Your task to perform on an android device: turn on notifications settings in the gmail app Image 0: 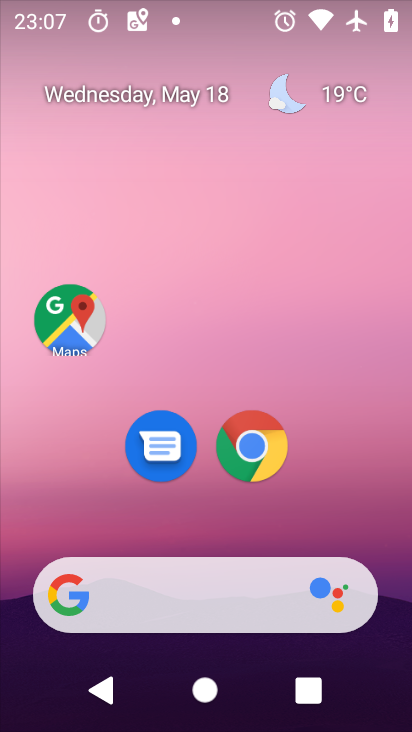
Step 0: press home button
Your task to perform on an android device: turn on notifications settings in the gmail app Image 1: 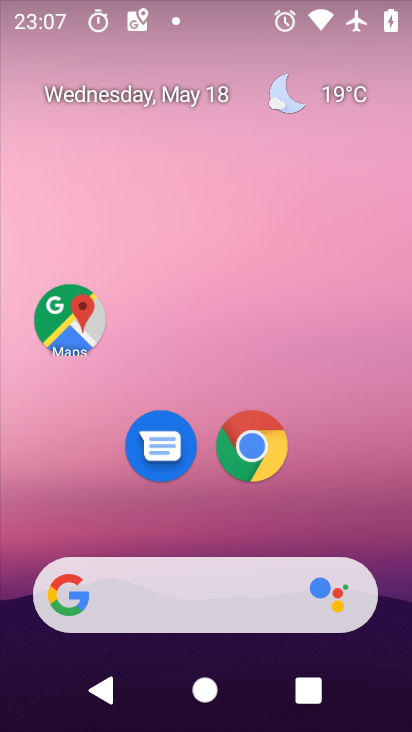
Step 1: drag from (213, 601) to (372, 142)
Your task to perform on an android device: turn on notifications settings in the gmail app Image 2: 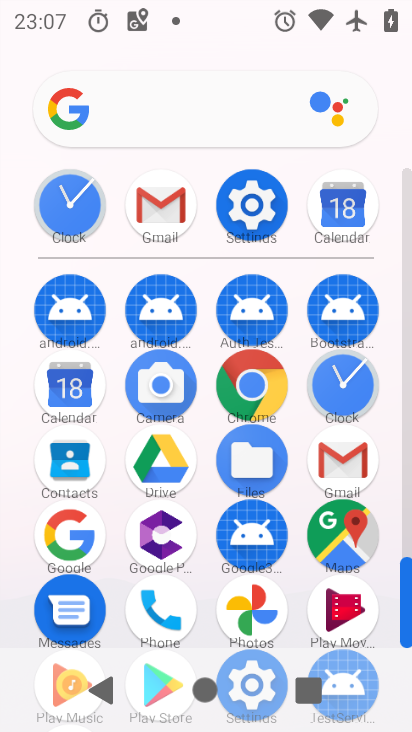
Step 2: click (167, 211)
Your task to perform on an android device: turn on notifications settings in the gmail app Image 3: 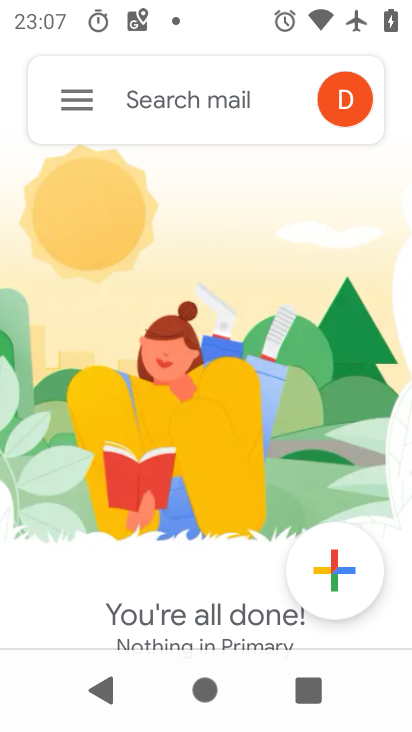
Step 3: click (75, 102)
Your task to perform on an android device: turn on notifications settings in the gmail app Image 4: 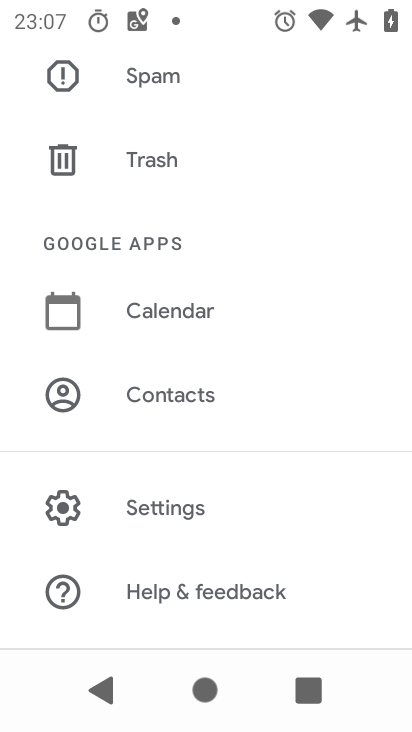
Step 4: click (171, 512)
Your task to perform on an android device: turn on notifications settings in the gmail app Image 5: 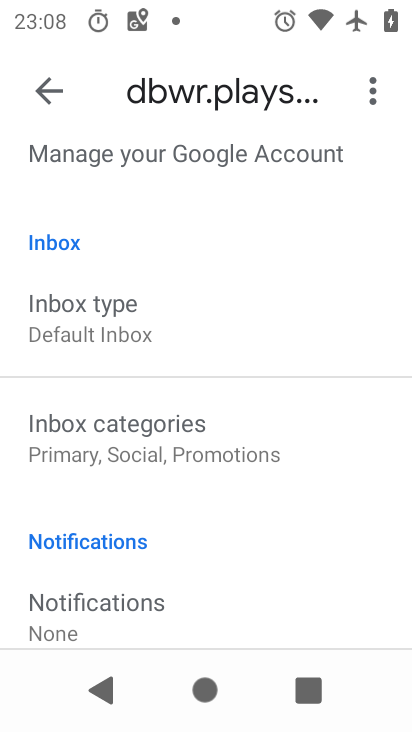
Step 5: drag from (165, 579) to (299, 391)
Your task to perform on an android device: turn on notifications settings in the gmail app Image 6: 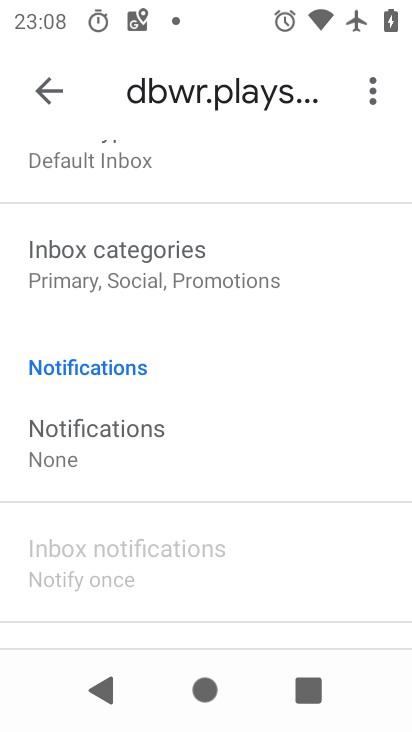
Step 6: click (113, 445)
Your task to perform on an android device: turn on notifications settings in the gmail app Image 7: 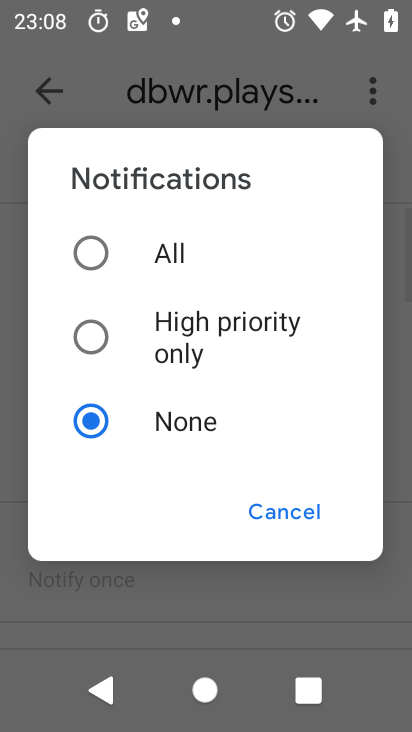
Step 7: click (89, 250)
Your task to perform on an android device: turn on notifications settings in the gmail app Image 8: 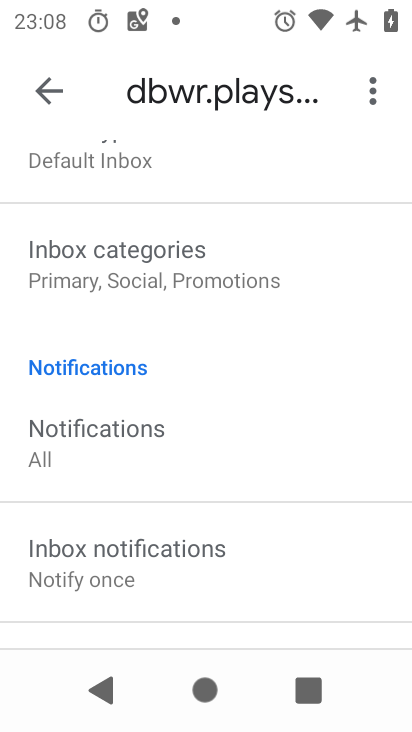
Step 8: task complete